Your task to perform on an android device: star an email in the gmail app Image 0: 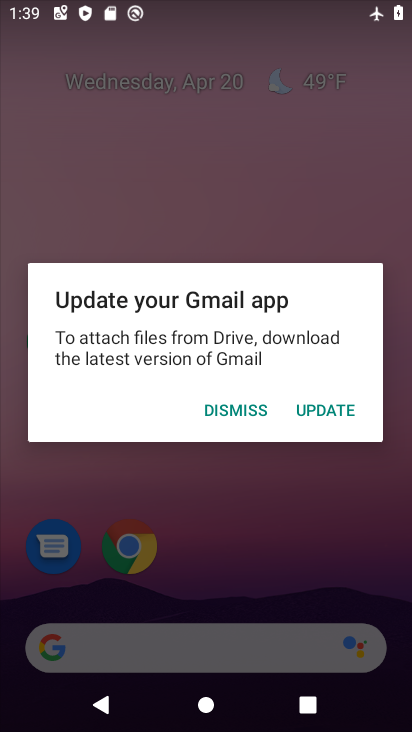
Step 0: press home button
Your task to perform on an android device: star an email in the gmail app Image 1: 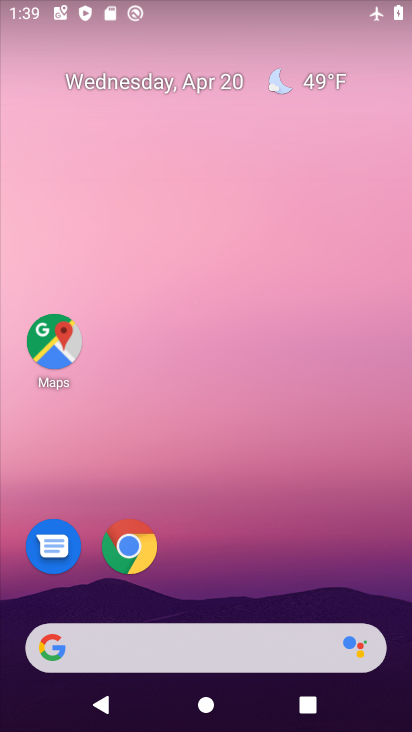
Step 1: drag from (233, 521) to (267, 208)
Your task to perform on an android device: star an email in the gmail app Image 2: 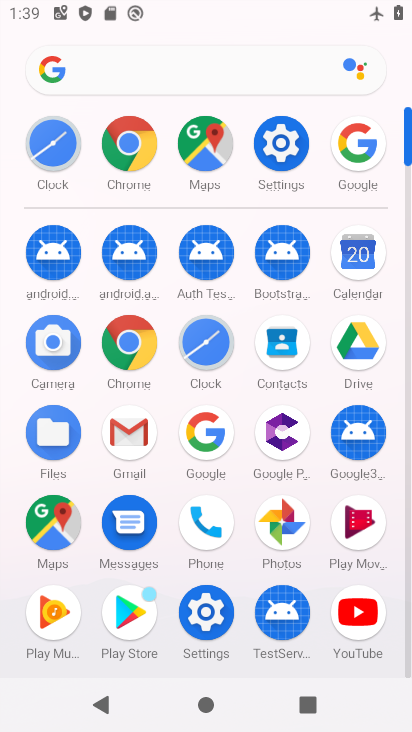
Step 2: click (123, 434)
Your task to perform on an android device: star an email in the gmail app Image 3: 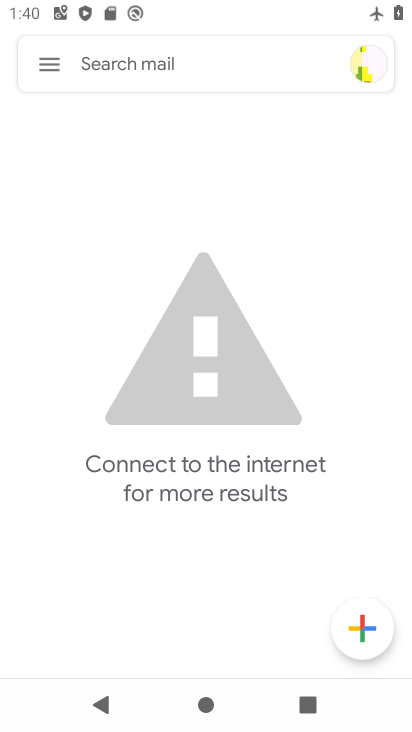
Step 3: click (41, 57)
Your task to perform on an android device: star an email in the gmail app Image 4: 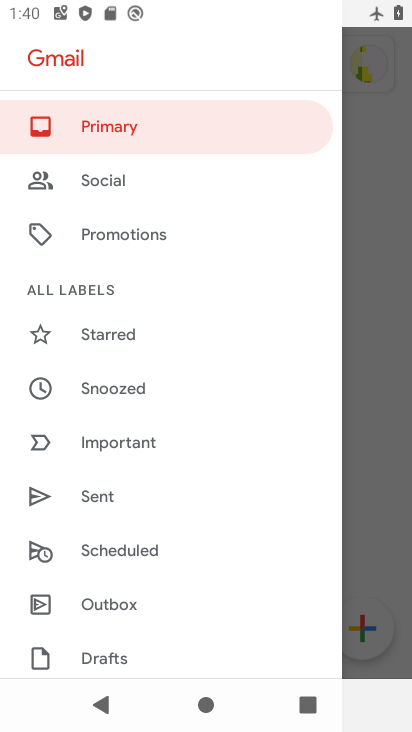
Step 4: click (132, 339)
Your task to perform on an android device: star an email in the gmail app Image 5: 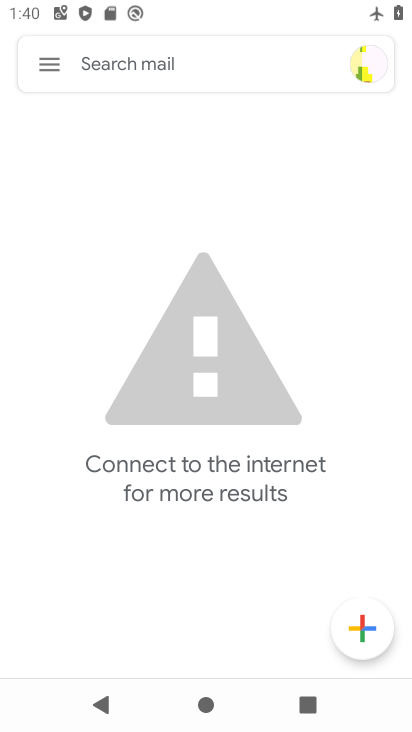
Step 5: task complete